Your task to perform on an android device: Search for seafood restaurants on Google Maps Image 0: 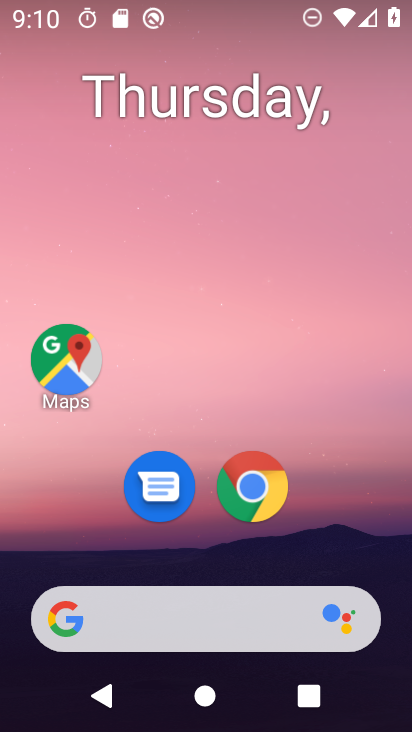
Step 0: click (77, 367)
Your task to perform on an android device: Search for seafood restaurants on Google Maps Image 1: 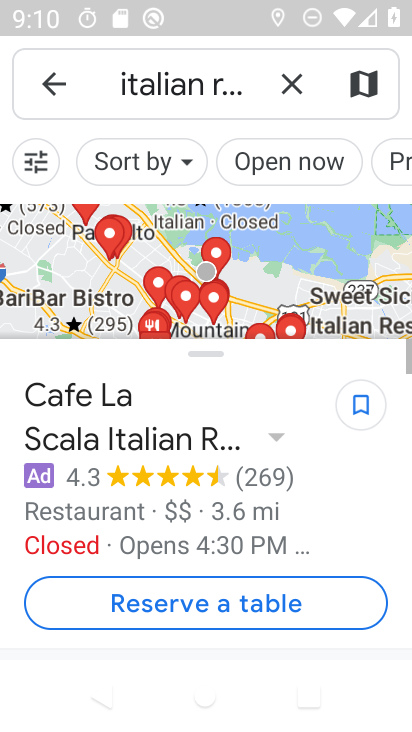
Step 1: click (283, 78)
Your task to perform on an android device: Search for seafood restaurants on Google Maps Image 2: 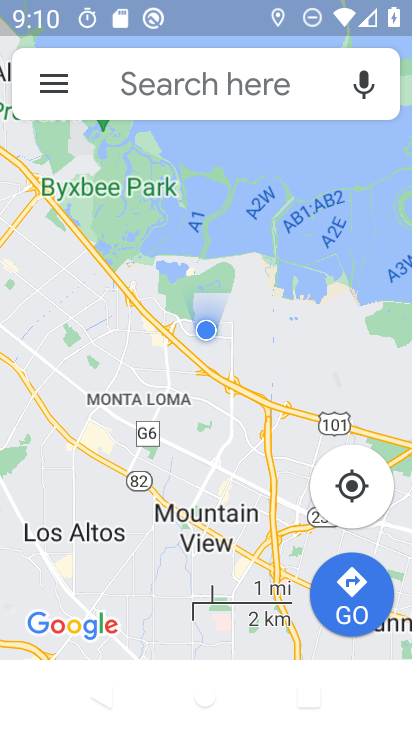
Step 2: click (199, 86)
Your task to perform on an android device: Search for seafood restaurants on Google Maps Image 3: 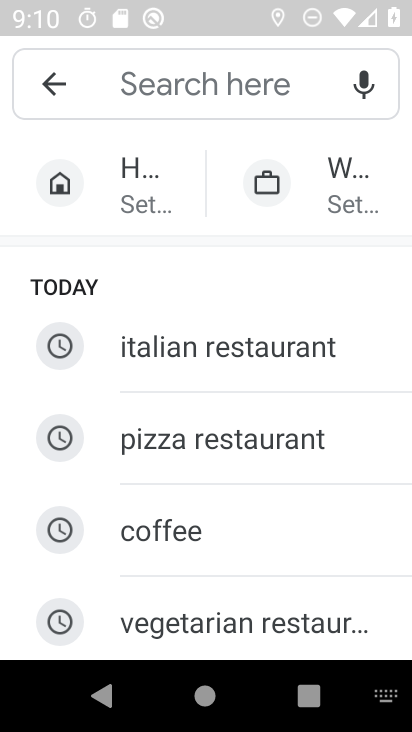
Step 3: drag from (161, 557) to (229, 42)
Your task to perform on an android device: Search for seafood restaurants on Google Maps Image 4: 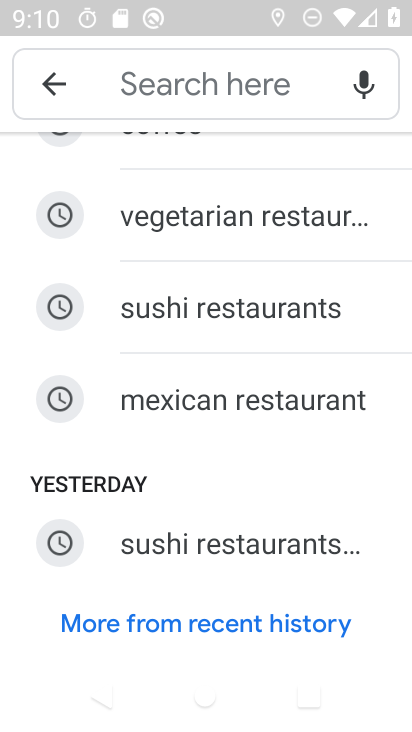
Step 4: click (156, 75)
Your task to perform on an android device: Search for seafood restaurants on Google Maps Image 5: 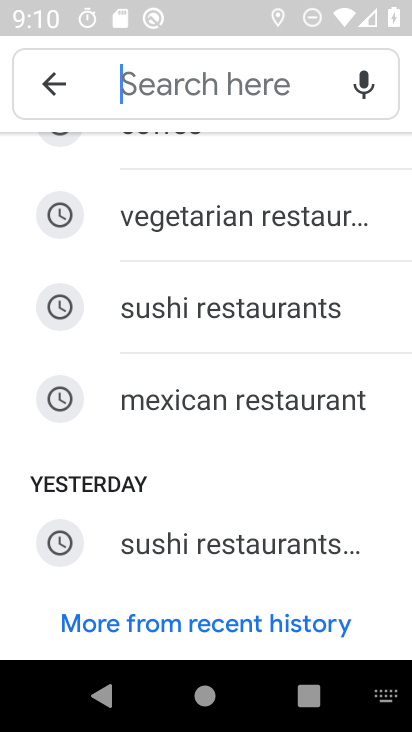
Step 5: type "seafood restaurants"
Your task to perform on an android device: Search for seafood restaurants on Google Maps Image 6: 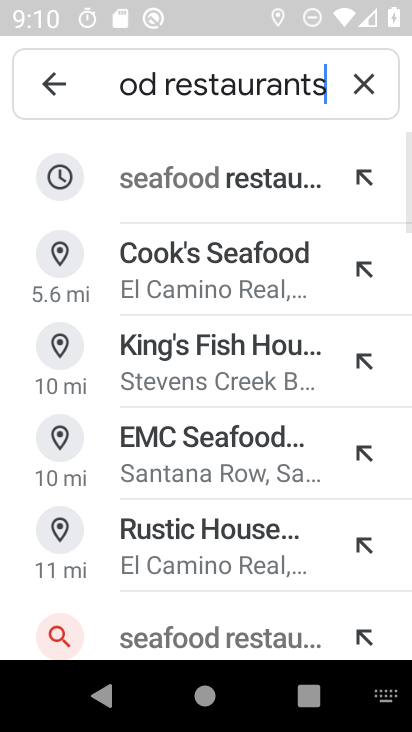
Step 6: click (213, 174)
Your task to perform on an android device: Search for seafood restaurants on Google Maps Image 7: 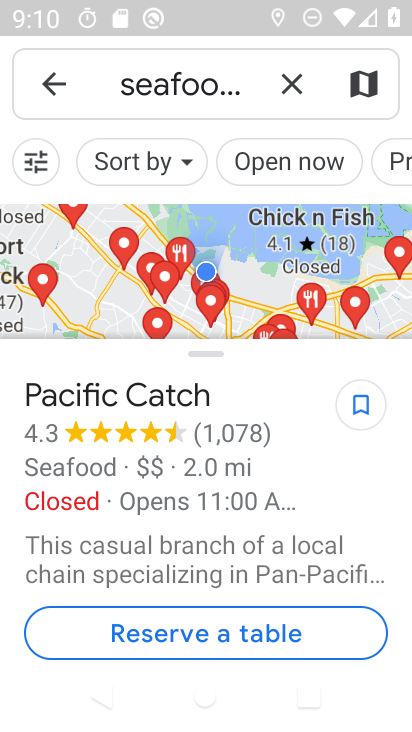
Step 7: task complete